Your task to perform on an android device: allow cookies in the chrome app Image 0: 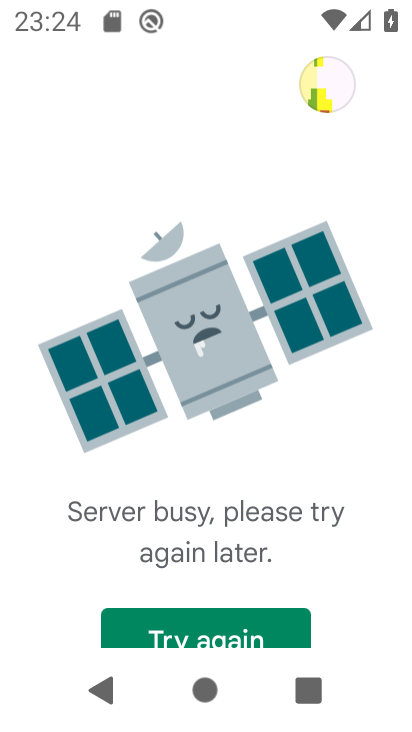
Step 0: press home button
Your task to perform on an android device: allow cookies in the chrome app Image 1: 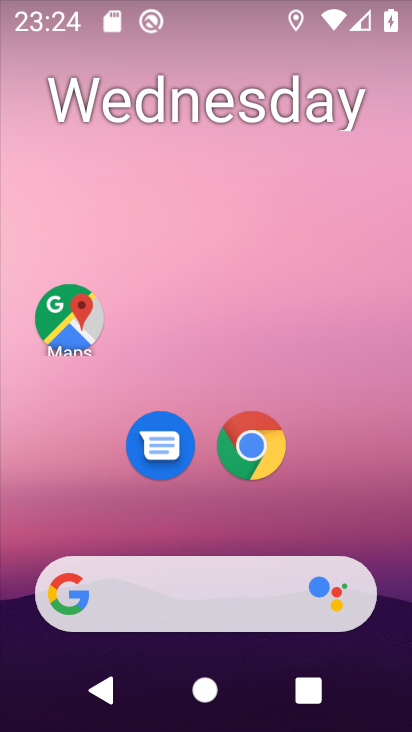
Step 1: click (251, 448)
Your task to perform on an android device: allow cookies in the chrome app Image 2: 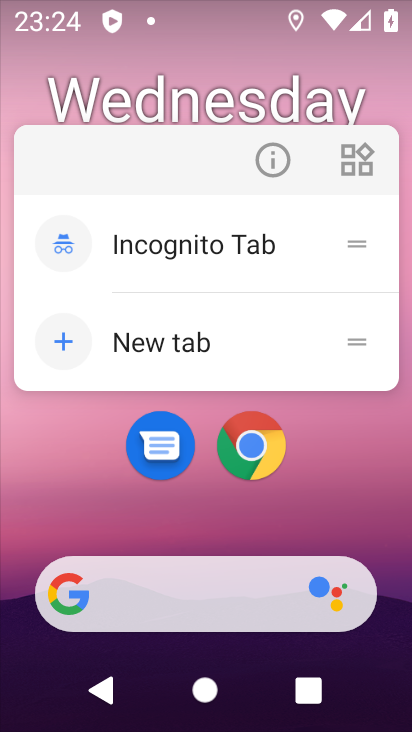
Step 2: click (255, 445)
Your task to perform on an android device: allow cookies in the chrome app Image 3: 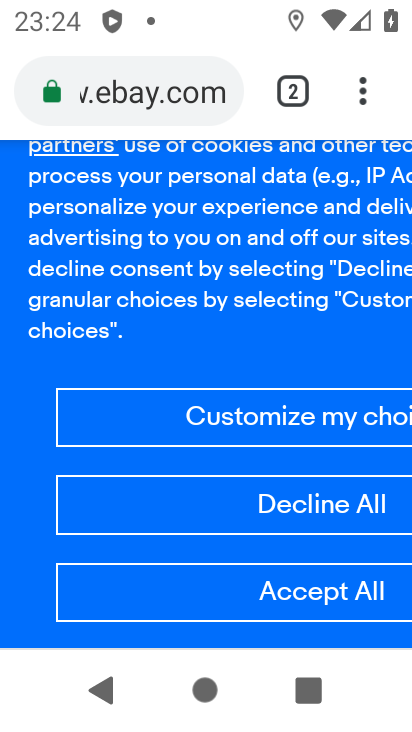
Step 3: drag from (371, 87) to (165, 465)
Your task to perform on an android device: allow cookies in the chrome app Image 4: 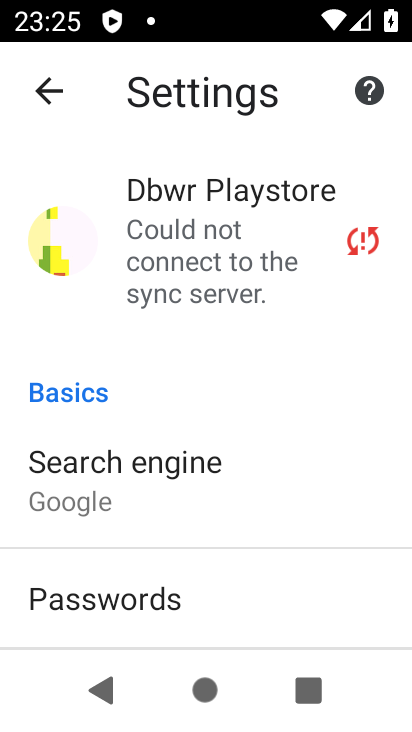
Step 4: drag from (225, 514) to (254, 111)
Your task to perform on an android device: allow cookies in the chrome app Image 5: 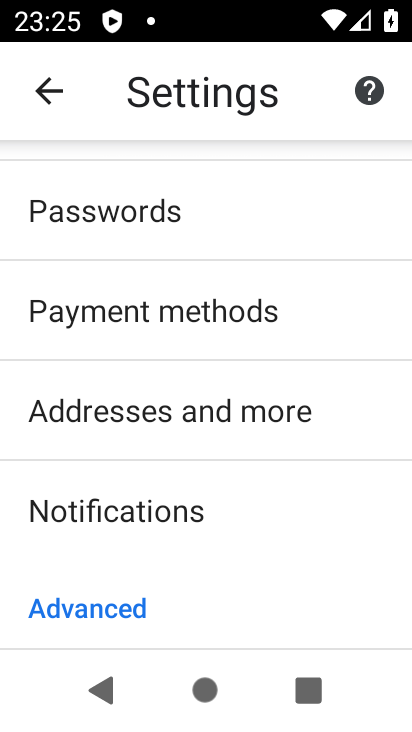
Step 5: drag from (213, 524) to (329, 74)
Your task to perform on an android device: allow cookies in the chrome app Image 6: 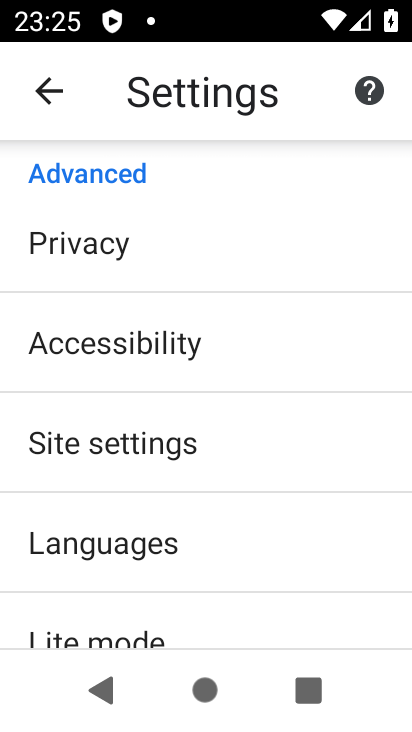
Step 6: click (189, 424)
Your task to perform on an android device: allow cookies in the chrome app Image 7: 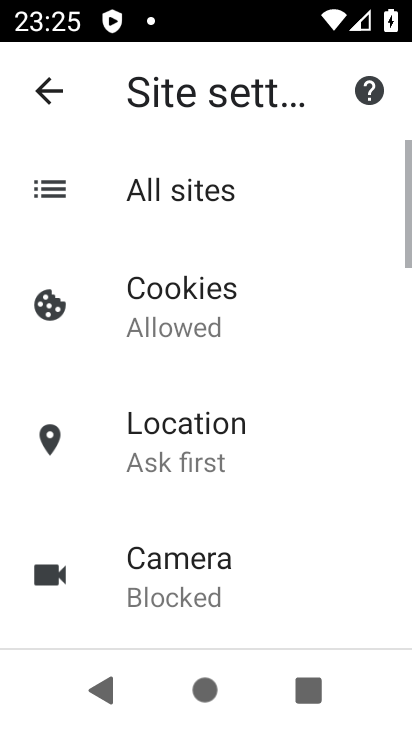
Step 7: click (193, 299)
Your task to perform on an android device: allow cookies in the chrome app Image 8: 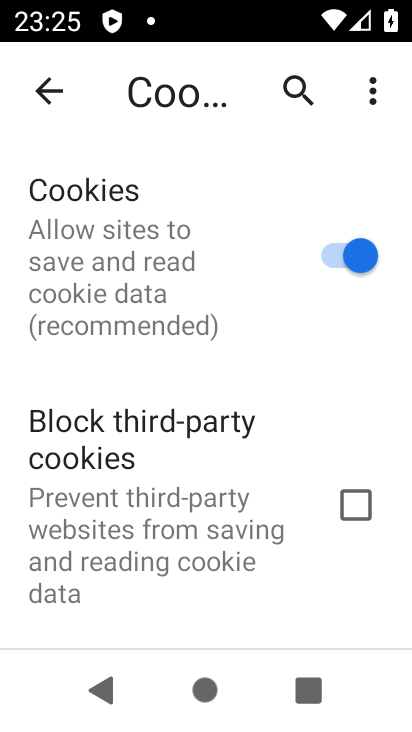
Step 8: click (205, 304)
Your task to perform on an android device: allow cookies in the chrome app Image 9: 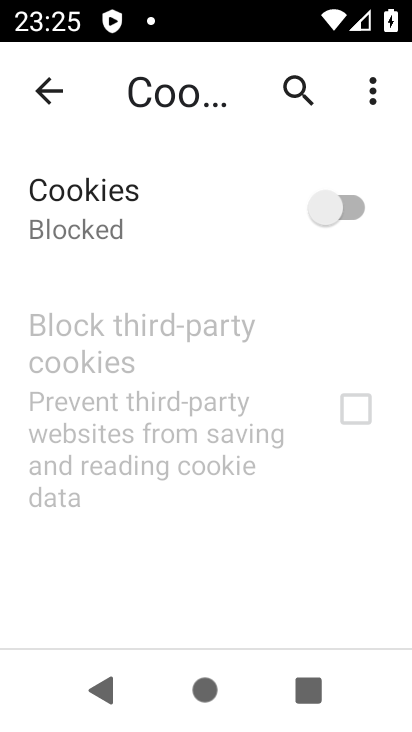
Step 9: click (324, 205)
Your task to perform on an android device: allow cookies in the chrome app Image 10: 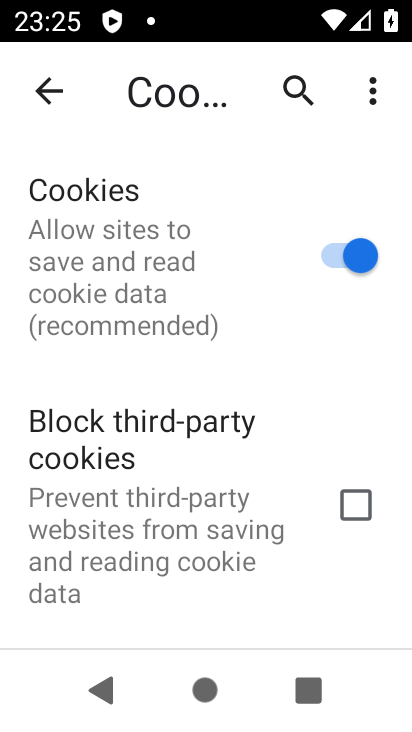
Step 10: task complete